Your task to perform on an android device: Open Chrome and go to settings Image 0: 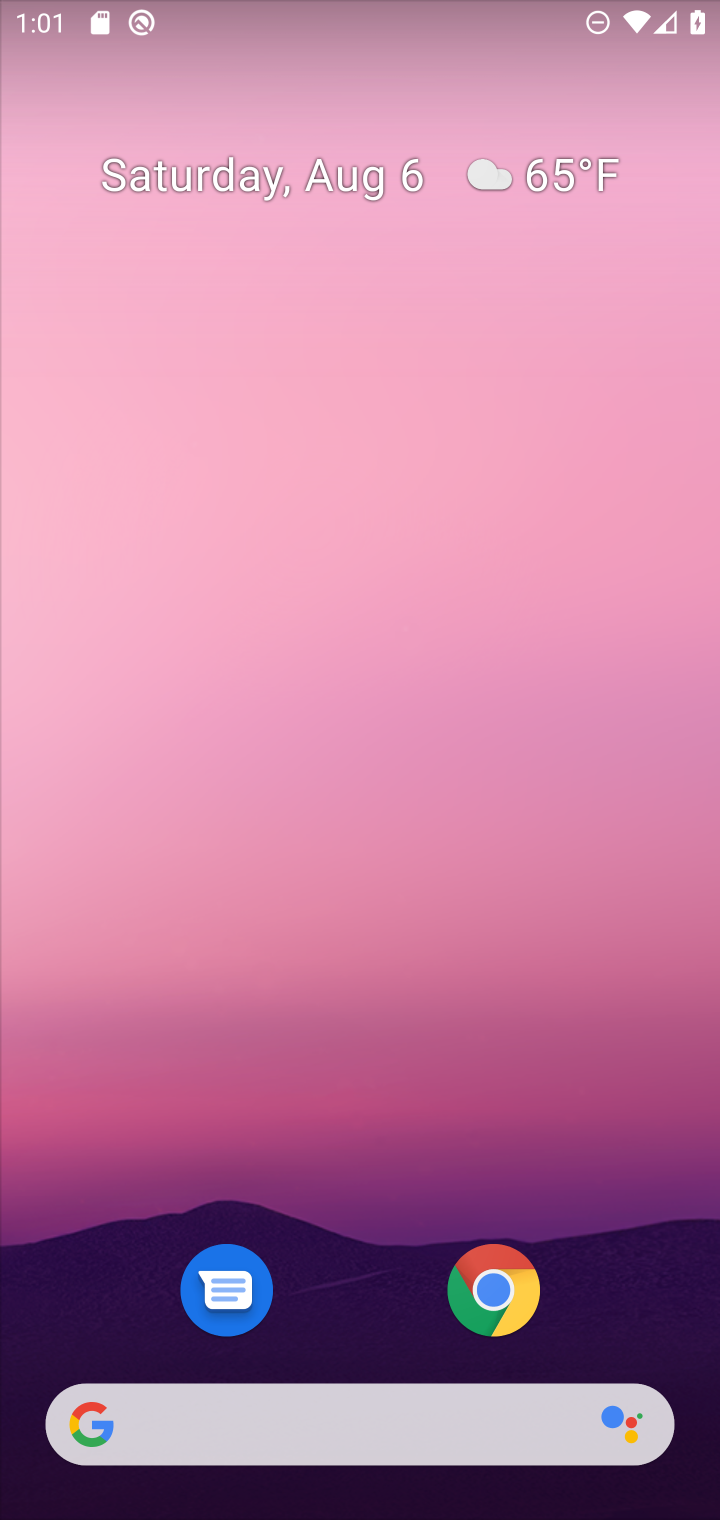
Step 0: click (471, 1292)
Your task to perform on an android device: Open Chrome and go to settings Image 1: 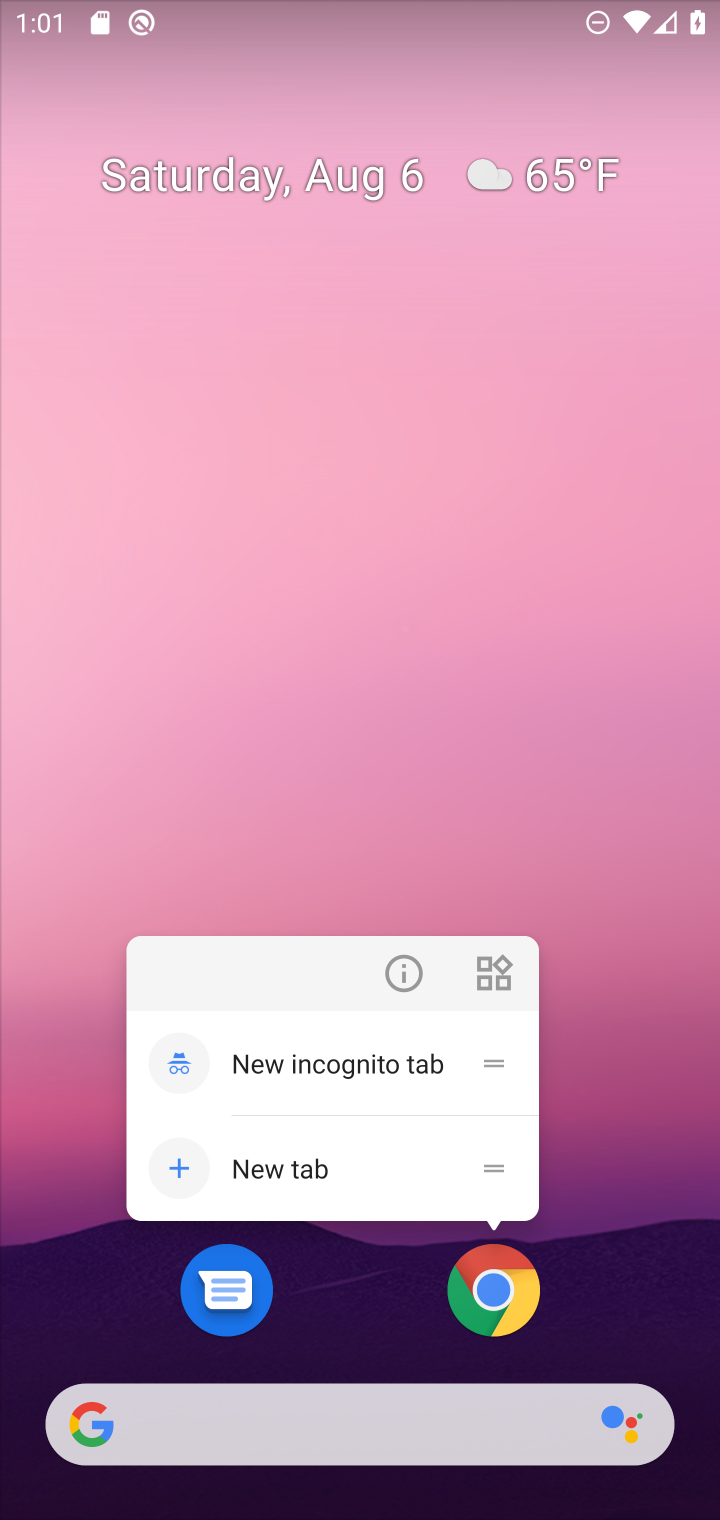
Step 1: click (496, 1292)
Your task to perform on an android device: Open Chrome and go to settings Image 2: 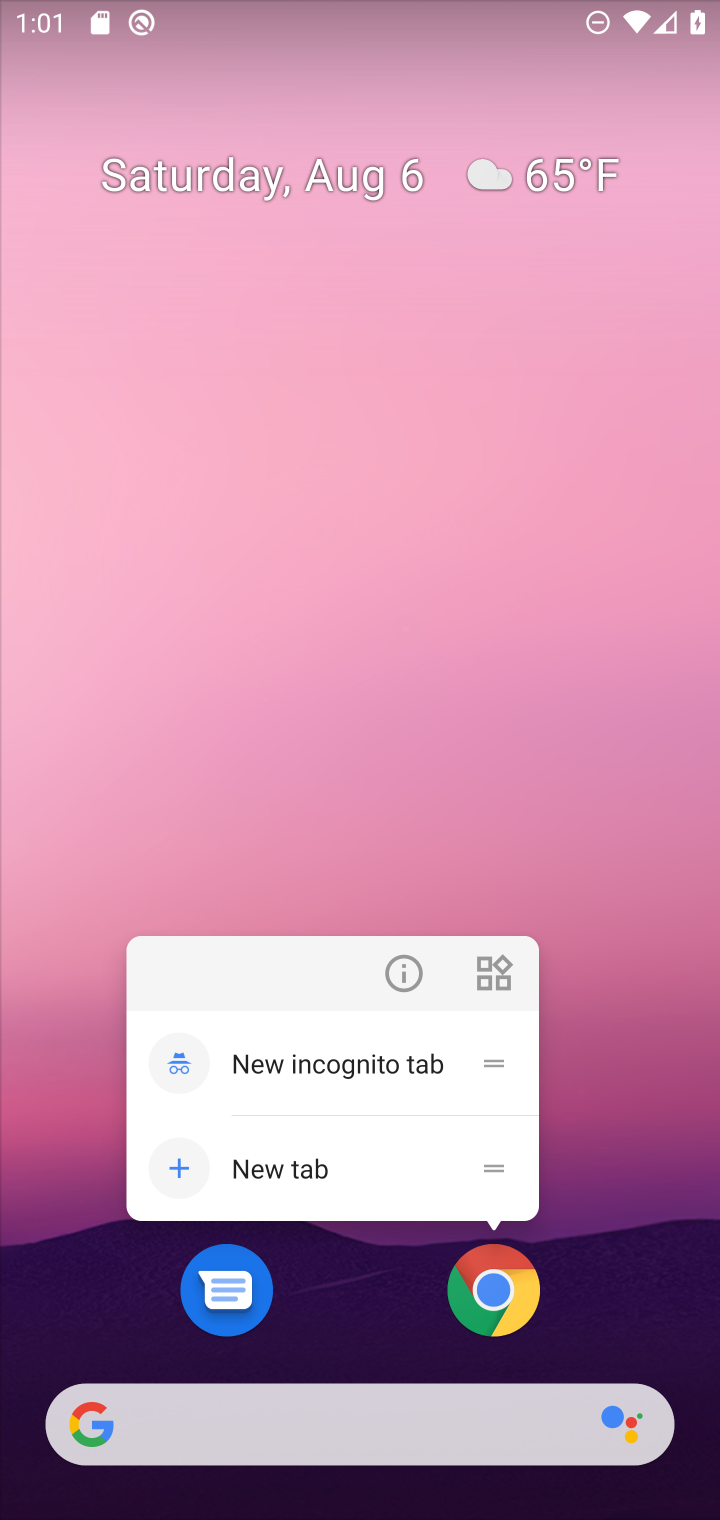
Step 2: click (499, 1294)
Your task to perform on an android device: Open Chrome and go to settings Image 3: 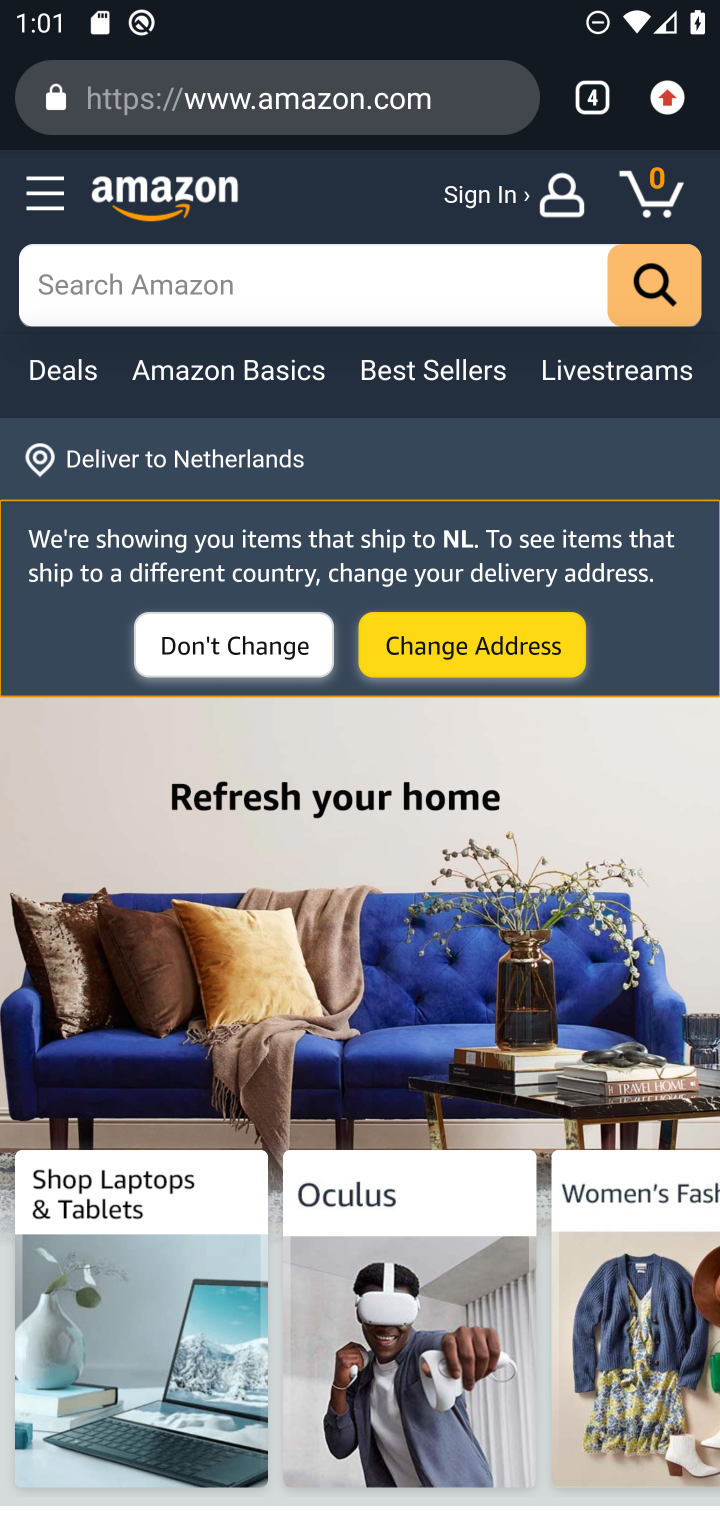
Step 3: click (656, 106)
Your task to perform on an android device: Open Chrome and go to settings Image 4: 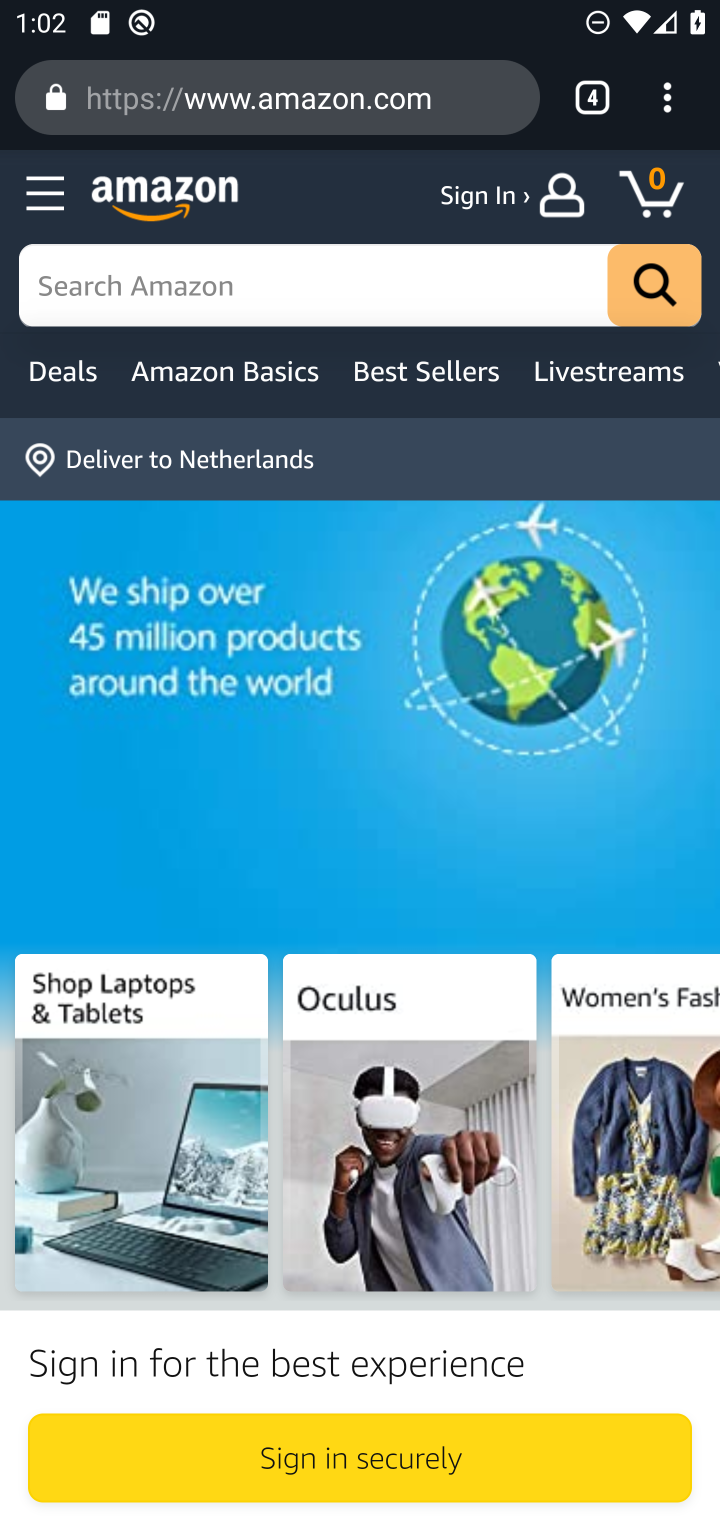
Step 4: task complete